Your task to perform on an android device: Play the last video I watched on Youtube Image 0: 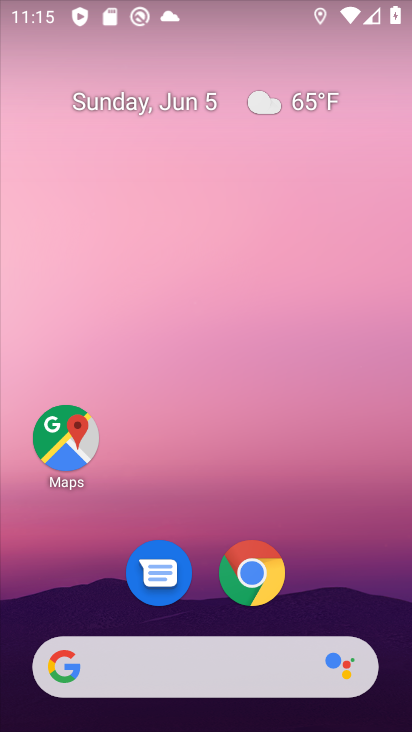
Step 0: press home button
Your task to perform on an android device: Play the last video I watched on Youtube Image 1: 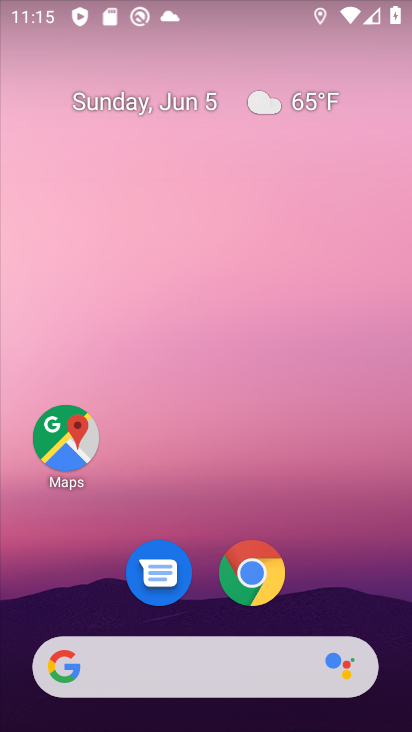
Step 1: drag from (211, 613) to (200, 45)
Your task to perform on an android device: Play the last video I watched on Youtube Image 2: 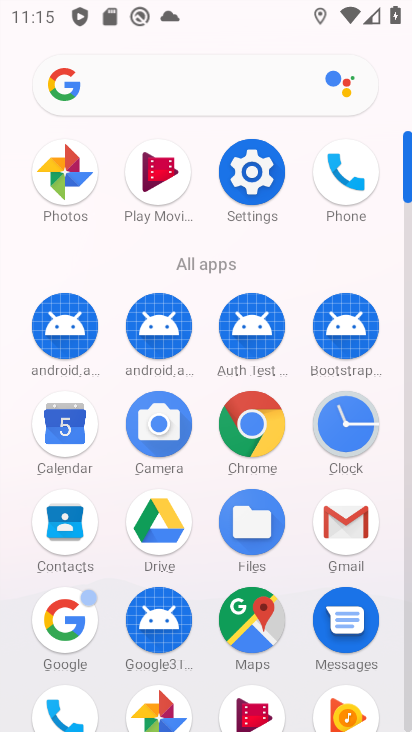
Step 2: drag from (204, 566) to (217, 112)
Your task to perform on an android device: Play the last video I watched on Youtube Image 3: 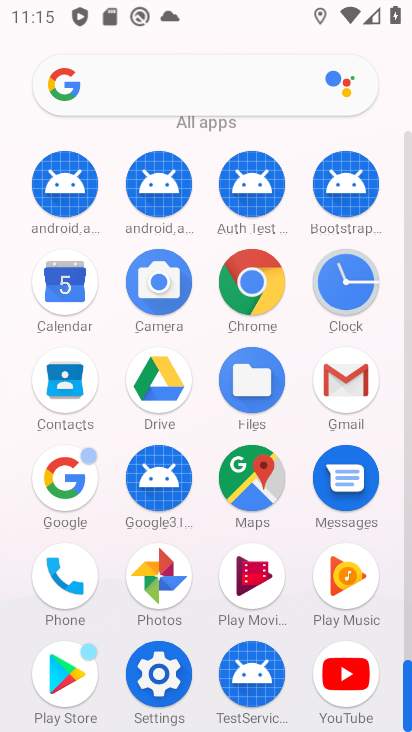
Step 3: click (335, 667)
Your task to perform on an android device: Play the last video I watched on Youtube Image 4: 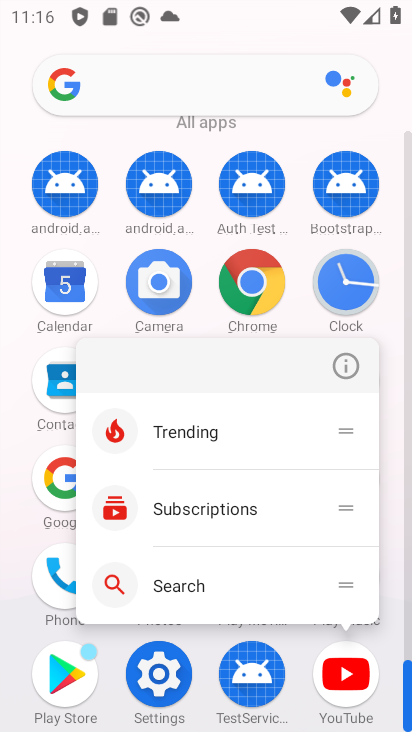
Step 4: click (335, 667)
Your task to perform on an android device: Play the last video I watched on Youtube Image 5: 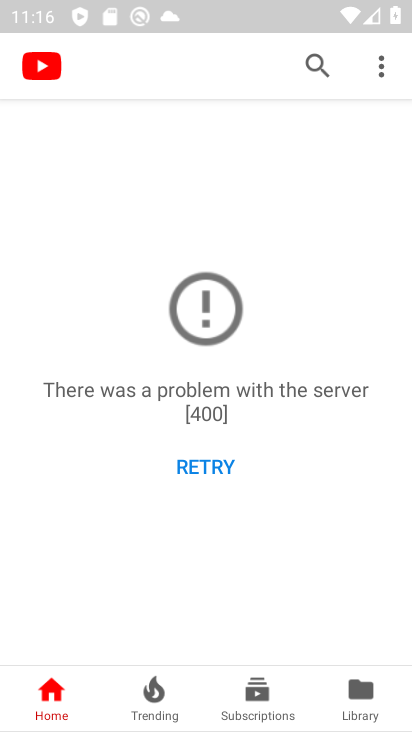
Step 5: task complete